Your task to perform on an android device: Open Google Chrome and click the shortcut for Amazon.com Image 0: 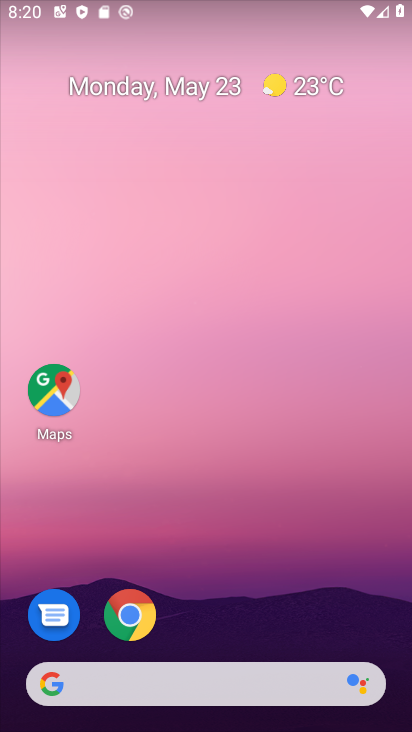
Step 0: click (131, 616)
Your task to perform on an android device: Open Google Chrome and click the shortcut for Amazon.com Image 1: 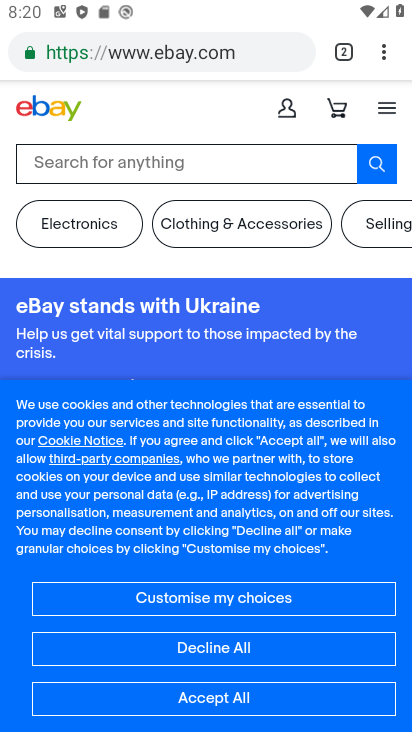
Step 1: click (385, 55)
Your task to perform on an android device: Open Google Chrome and click the shortcut for Amazon.com Image 2: 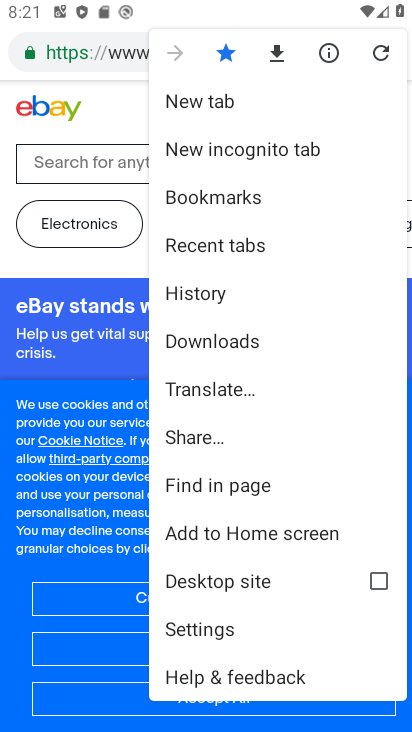
Step 2: click (130, 107)
Your task to perform on an android device: Open Google Chrome and click the shortcut for Amazon.com Image 3: 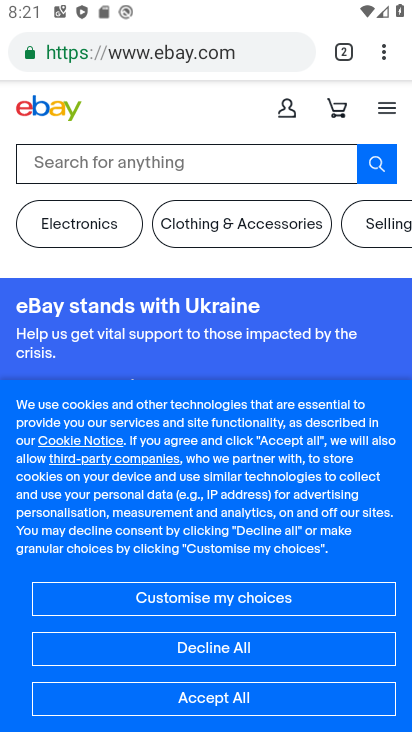
Step 3: click (266, 46)
Your task to perform on an android device: Open Google Chrome and click the shortcut for Amazon.com Image 4: 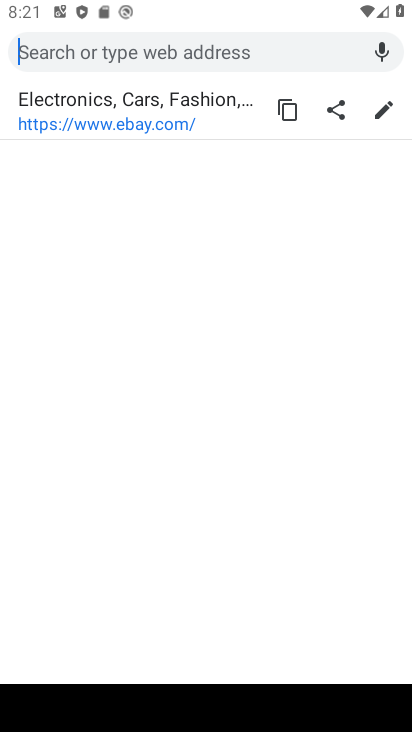
Step 4: type "Amazon.com"
Your task to perform on an android device: Open Google Chrome and click the shortcut for Amazon.com Image 5: 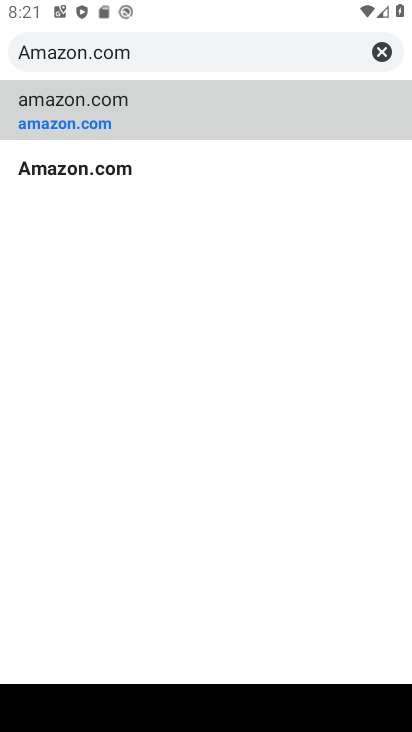
Step 5: click (99, 164)
Your task to perform on an android device: Open Google Chrome and click the shortcut for Amazon.com Image 6: 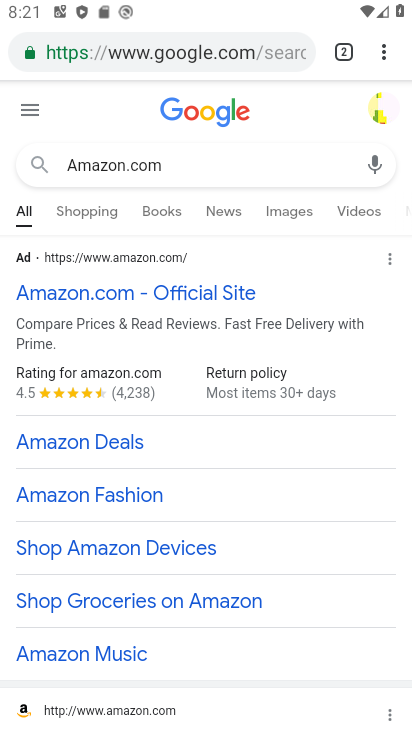
Step 6: click (113, 294)
Your task to perform on an android device: Open Google Chrome and click the shortcut for Amazon.com Image 7: 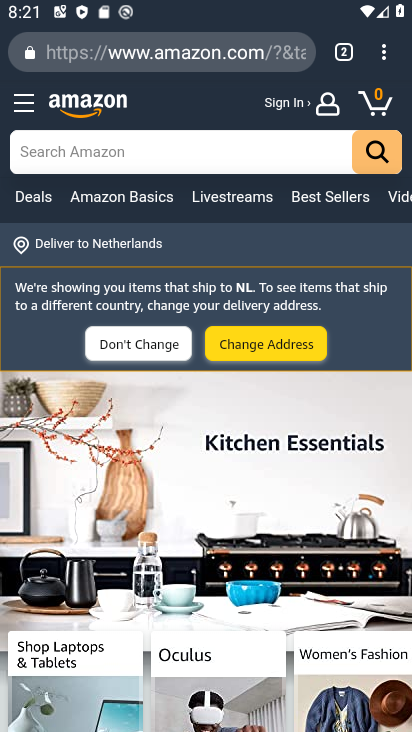
Step 7: click (386, 53)
Your task to perform on an android device: Open Google Chrome and click the shortcut for Amazon.com Image 8: 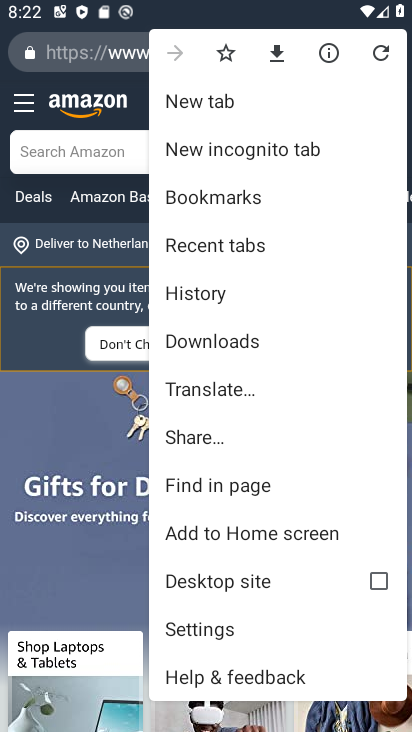
Step 8: click (248, 535)
Your task to perform on an android device: Open Google Chrome and click the shortcut for Amazon.com Image 9: 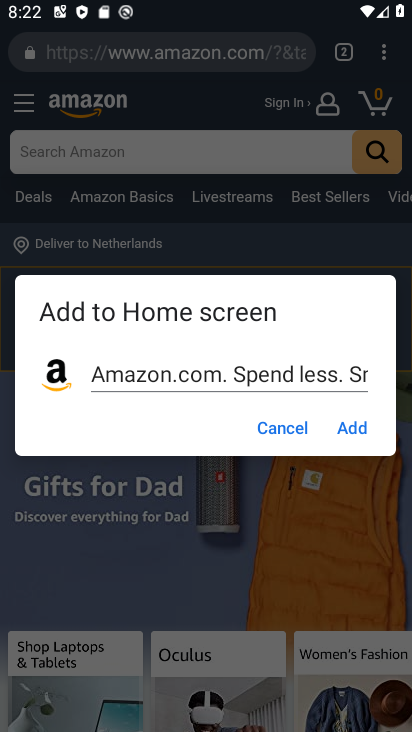
Step 9: click (350, 426)
Your task to perform on an android device: Open Google Chrome and click the shortcut for Amazon.com Image 10: 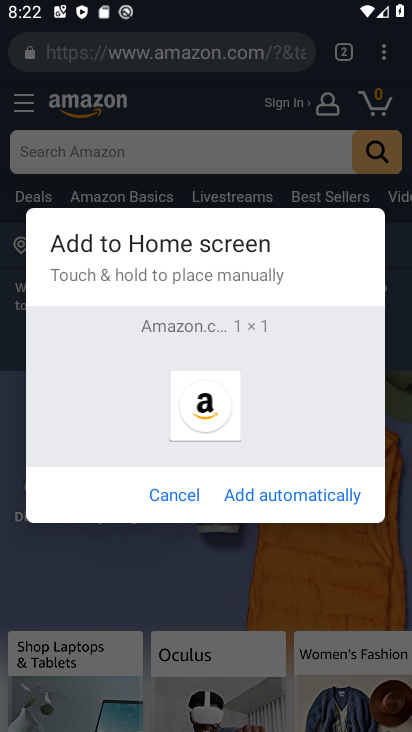
Step 10: click (308, 494)
Your task to perform on an android device: Open Google Chrome and click the shortcut for Amazon.com Image 11: 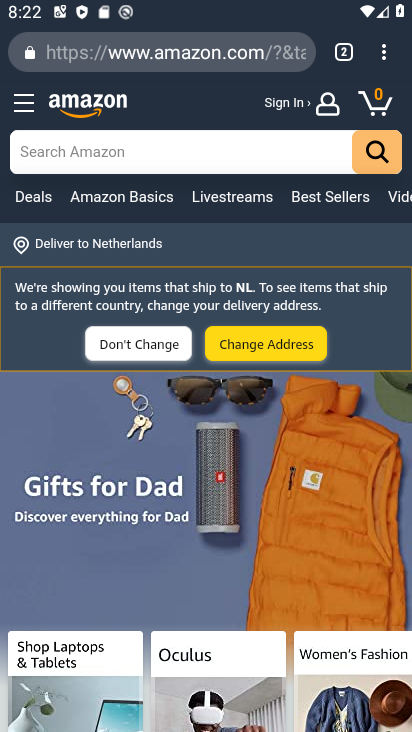
Step 11: task complete